Your task to perform on an android device: Go to calendar. Show me events next week Image 0: 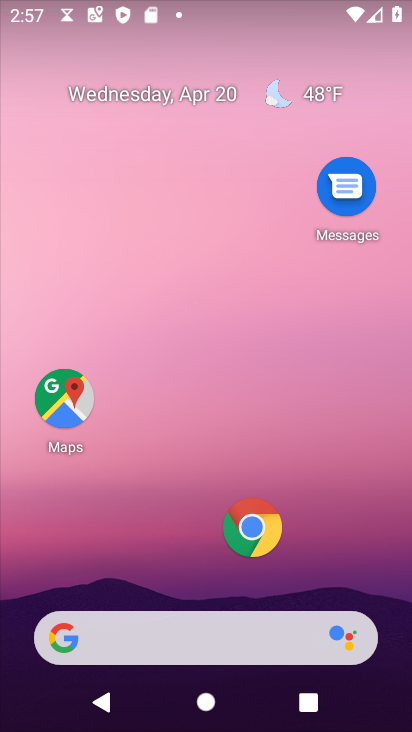
Step 0: drag from (147, 635) to (292, 66)
Your task to perform on an android device: Go to calendar. Show me events next week Image 1: 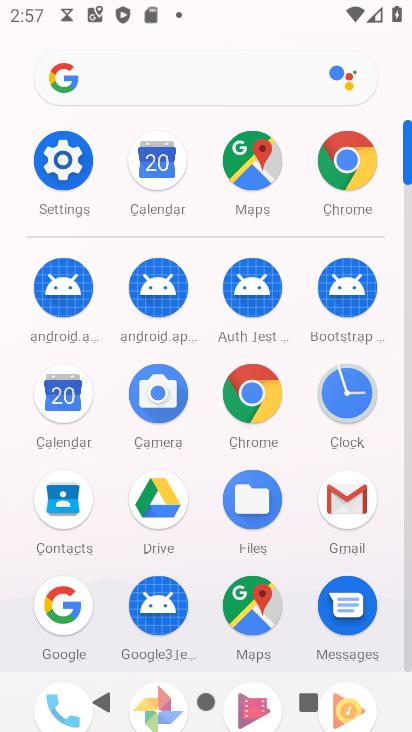
Step 1: click (61, 395)
Your task to perform on an android device: Go to calendar. Show me events next week Image 2: 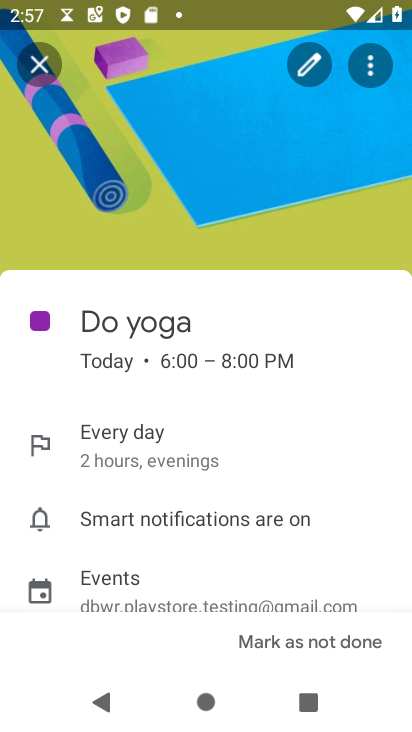
Step 2: click (37, 72)
Your task to perform on an android device: Go to calendar. Show me events next week Image 3: 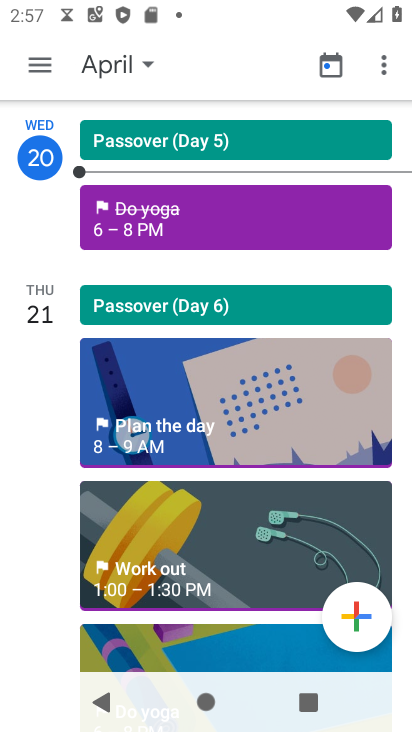
Step 3: click (99, 57)
Your task to perform on an android device: Go to calendar. Show me events next week Image 4: 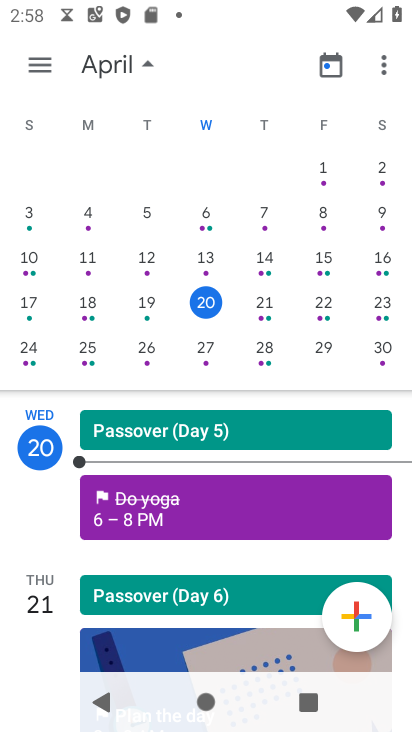
Step 4: click (30, 347)
Your task to perform on an android device: Go to calendar. Show me events next week Image 5: 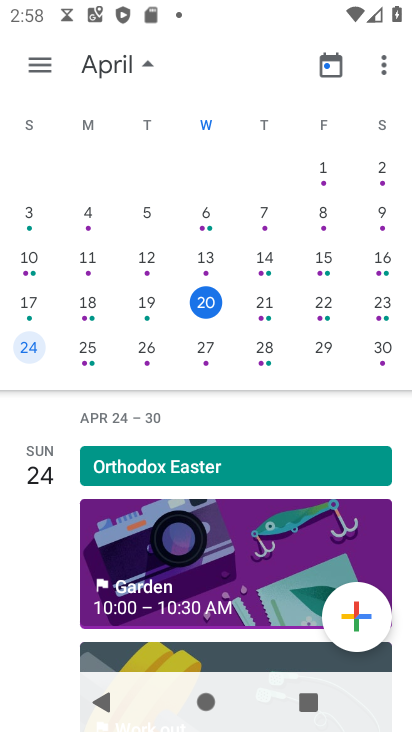
Step 5: click (39, 60)
Your task to perform on an android device: Go to calendar. Show me events next week Image 6: 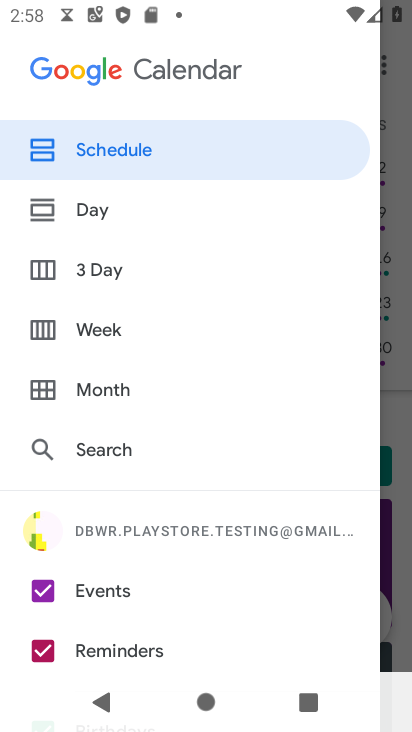
Step 6: click (99, 329)
Your task to perform on an android device: Go to calendar. Show me events next week Image 7: 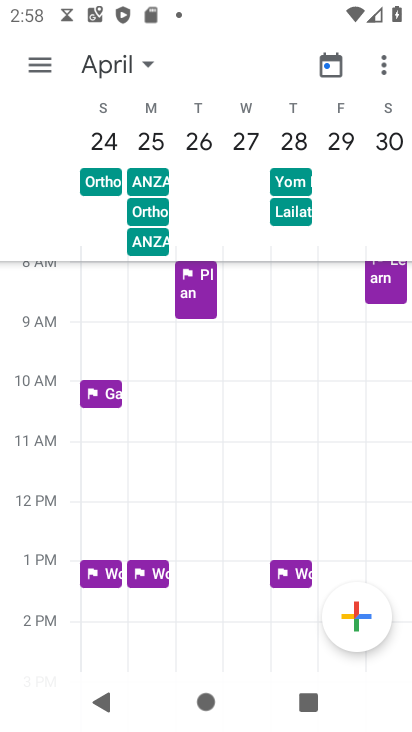
Step 7: click (32, 63)
Your task to perform on an android device: Go to calendar. Show me events next week Image 8: 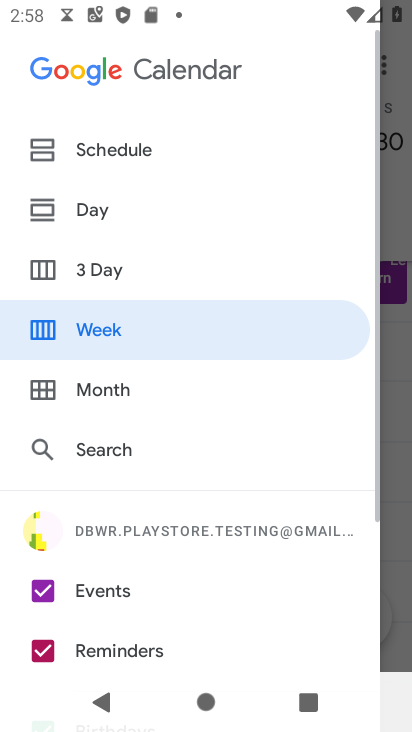
Step 8: click (126, 150)
Your task to perform on an android device: Go to calendar. Show me events next week Image 9: 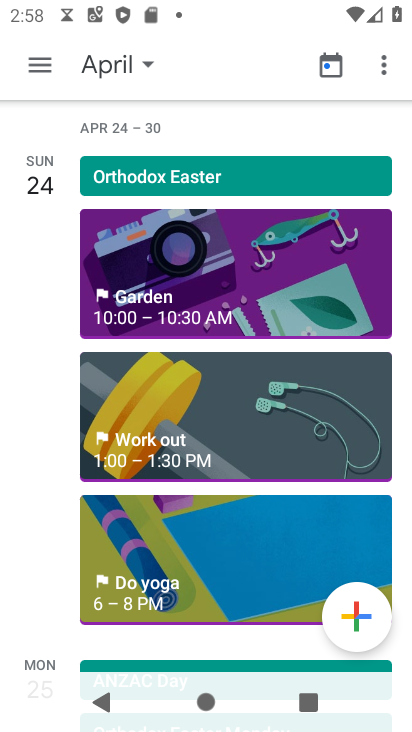
Step 9: click (209, 290)
Your task to perform on an android device: Go to calendar. Show me events next week Image 10: 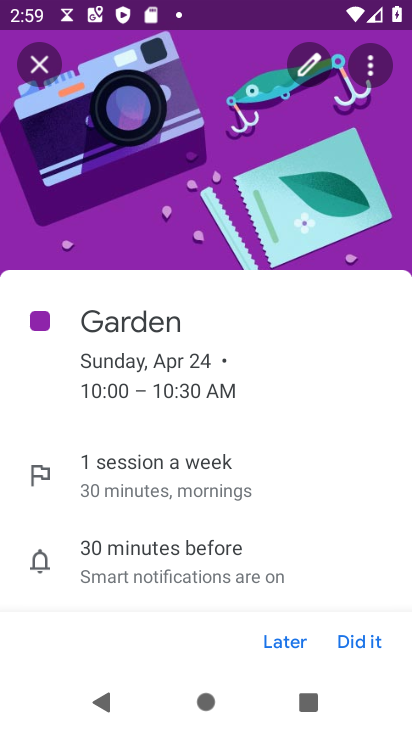
Step 10: task complete